Your task to perform on an android device: turn on priority inbox in the gmail app Image 0: 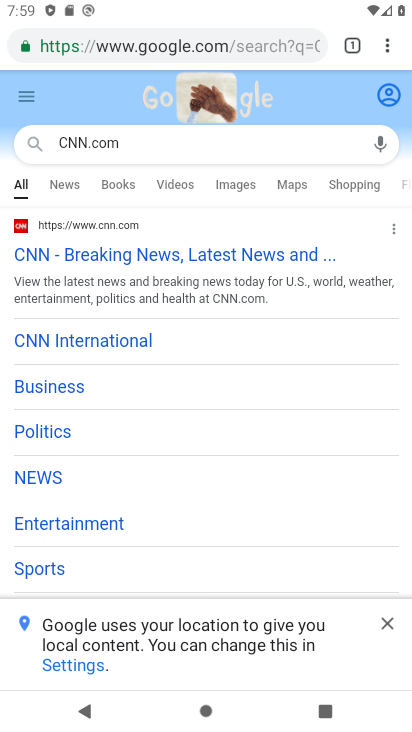
Step 0: press home button
Your task to perform on an android device: turn on priority inbox in the gmail app Image 1: 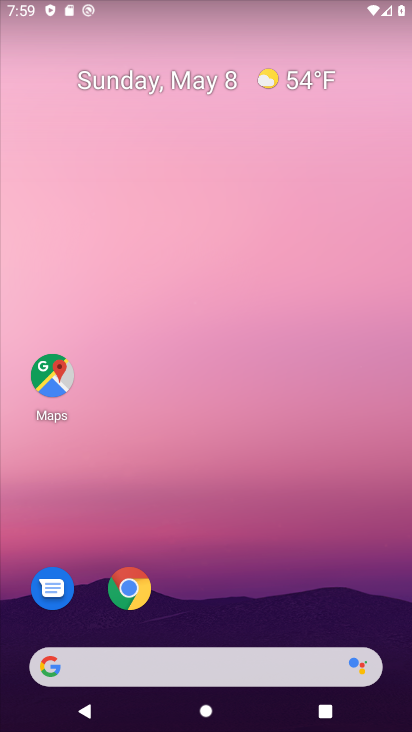
Step 1: drag from (21, 631) to (206, 234)
Your task to perform on an android device: turn on priority inbox in the gmail app Image 2: 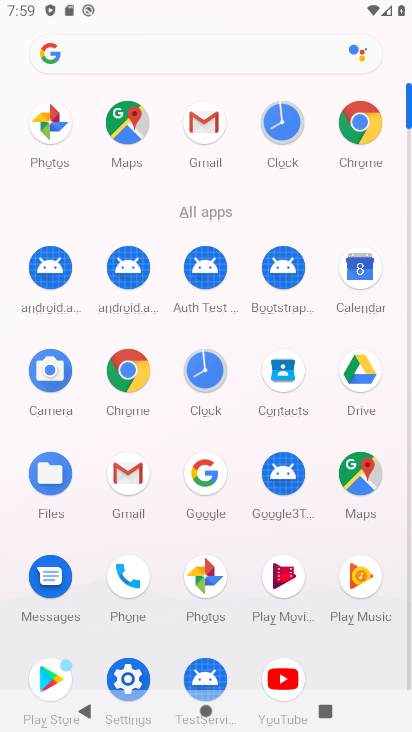
Step 2: click (138, 463)
Your task to perform on an android device: turn on priority inbox in the gmail app Image 3: 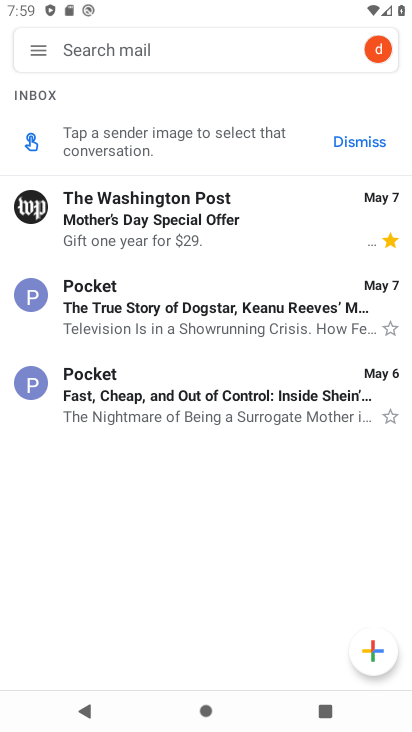
Step 3: press back button
Your task to perform on an android device: turn on priority inbox in the gmail app Image 4: 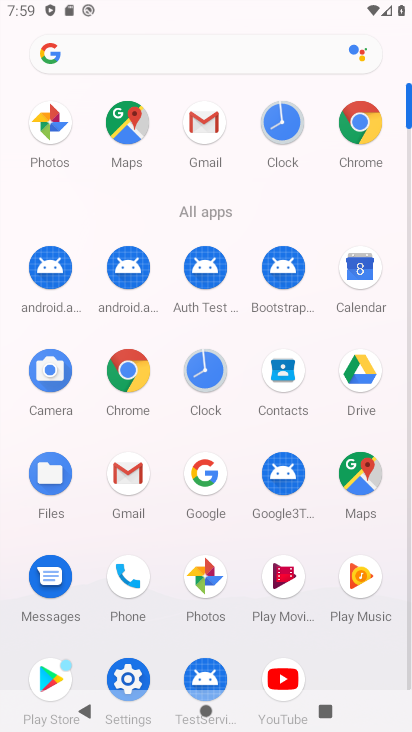
Step 4: click (116, 484)
Your task to perform on an android device: turn on priority inbox in the gmail app Image 5: 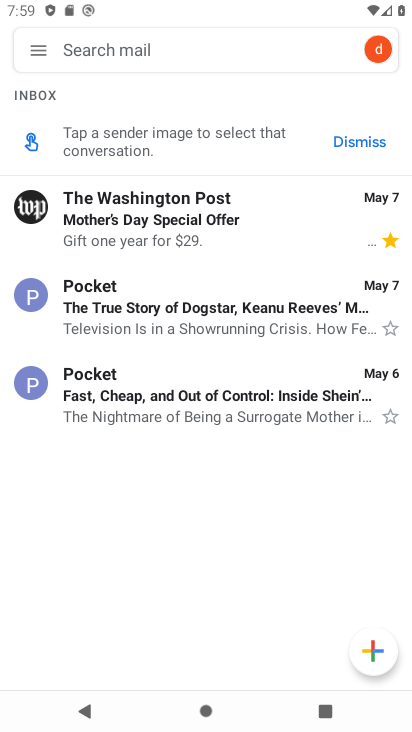
Step 5: click (30, 45)
Your task to perform on an android device: turn on priority inbox in the gmail app Image 6: 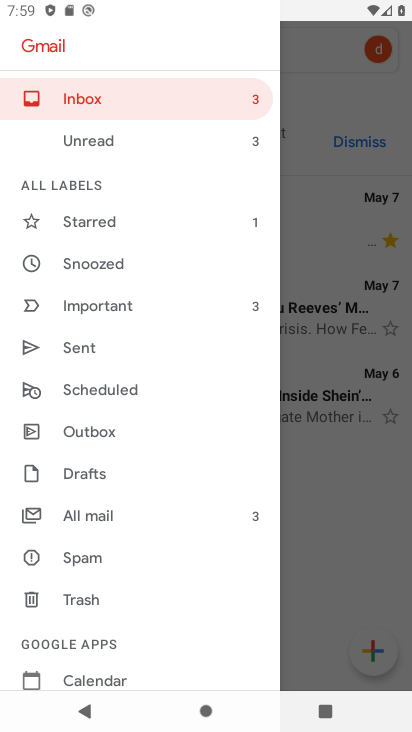
Step 6: drag from (51, 655) to (127, 257)
Your task to perform on an android device: turn on priority inbox in the gmail app Image 7: 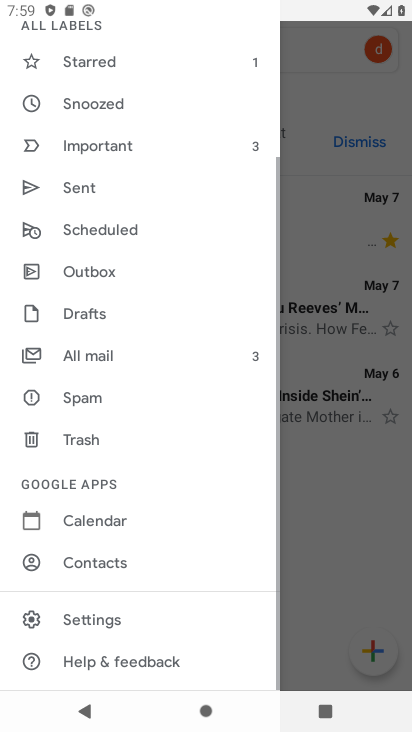
Step 7: click (117, 621)
Your task to perform on an android device: turn on priority inbox in the gmail app Image 8: 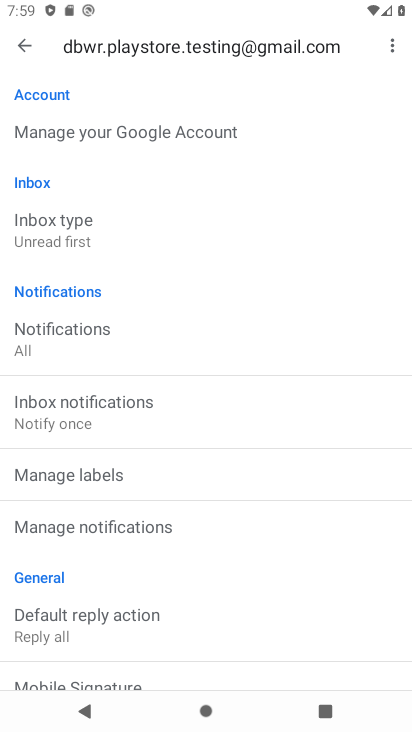
Step 8: click (84, 242)
Your task to perform on an android device: turn on priority inbox in the gmail app Image 9: 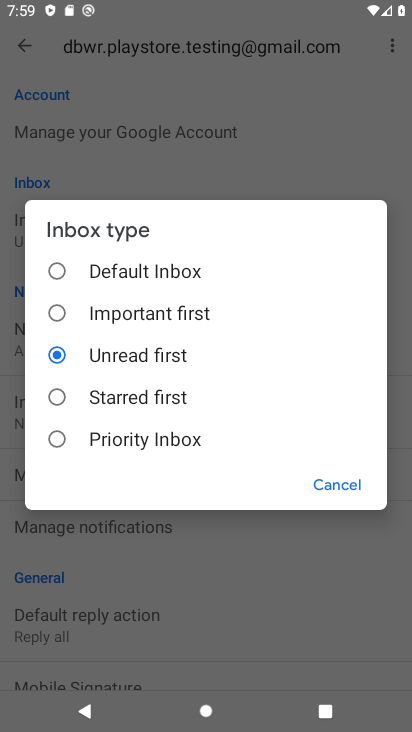
Step 9: click (133, 432)
Your task to perform on an android device: turn on priority inbox in the gmail app Image 10: 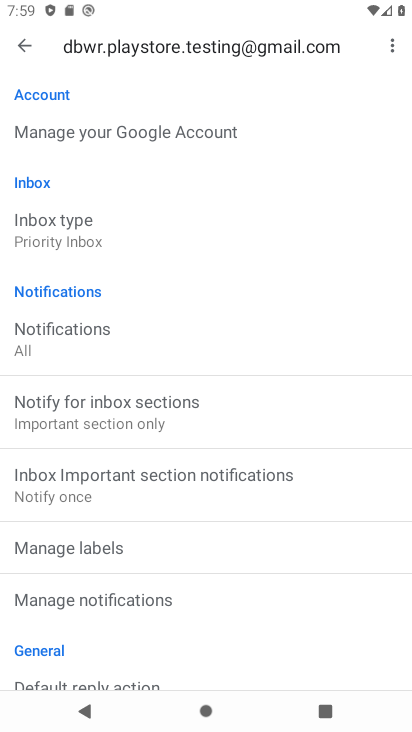
Step 10: task complete